Your task to perform on an android device: Open Google Image 0: 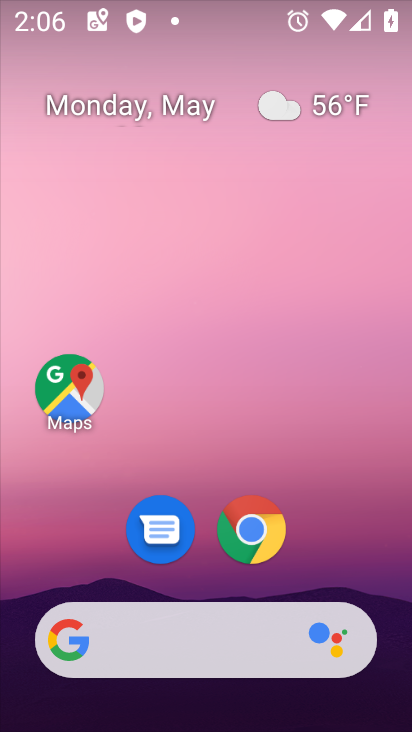
Step 0: drag from (215, 574) to (403, 0)
Your task to perform on an android device: Open Google Image 1: 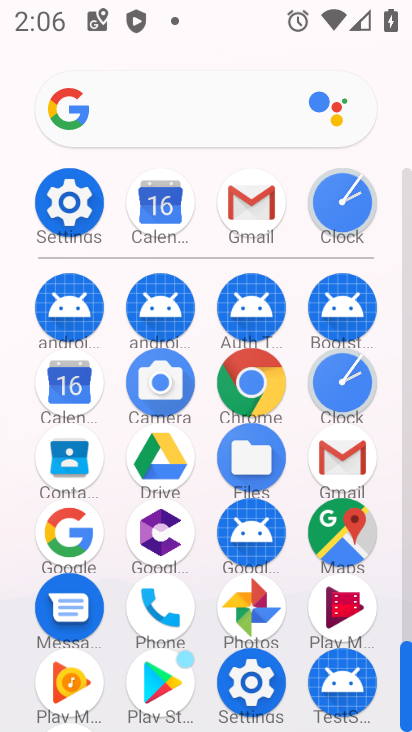
Step 1: click (60, 530)
Your task to perform on an android device: Open Google Image 2: 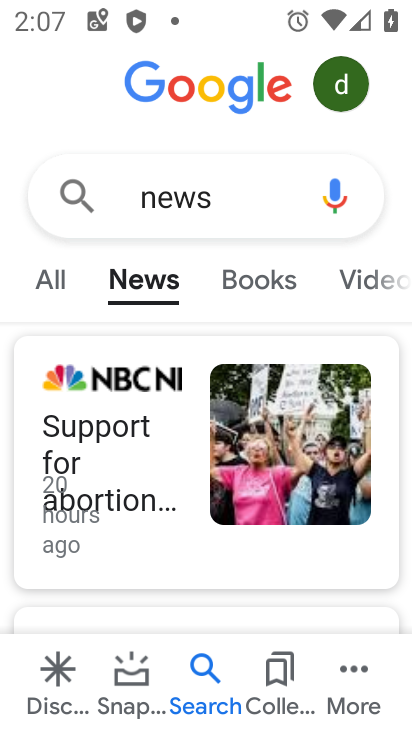
Step 2: task complete